Your task to perform on an android device: Go to Wikipedia Image 0: 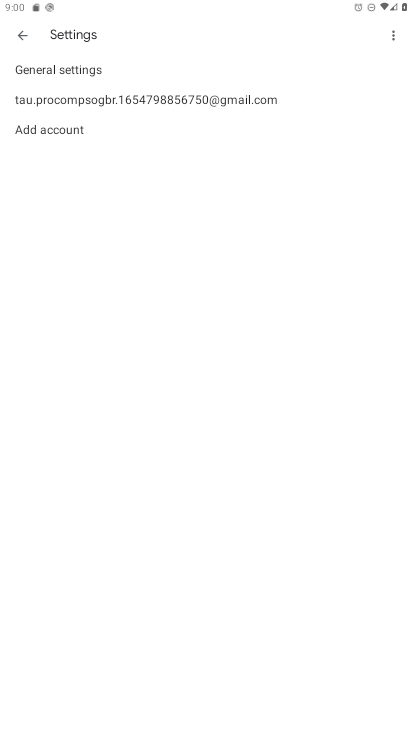
Step 0: press home button
Your task to perform on an android device: Go to Wikipedia Image 1: 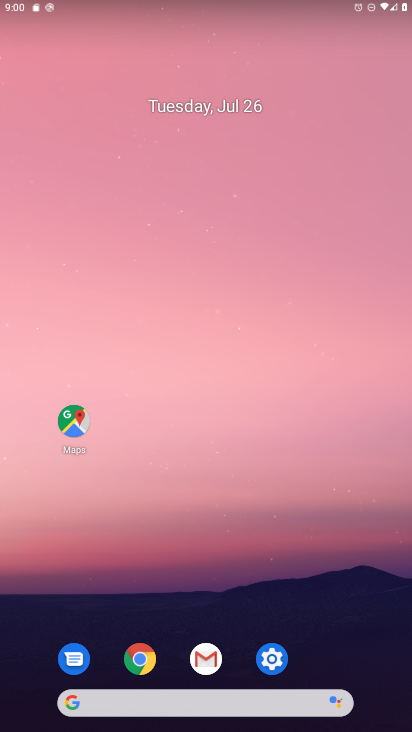
Step 1: click (149, 659)
Your task to perform on an android device: Go to Wikipedia Image 2: 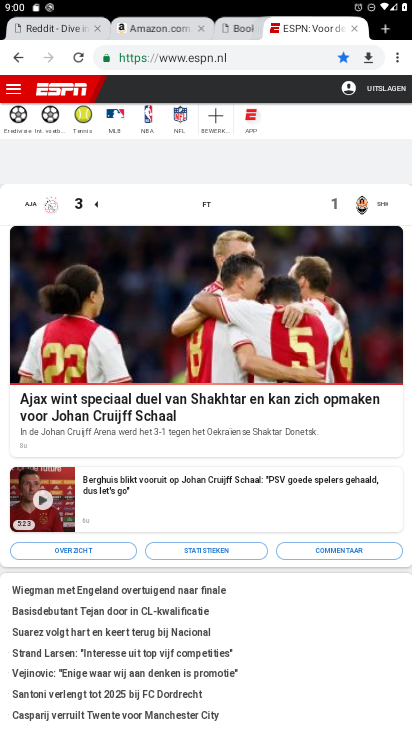
Step 2: click (382, 29)
Your task to perform on an android device: Go to Wikipedia Image 3: 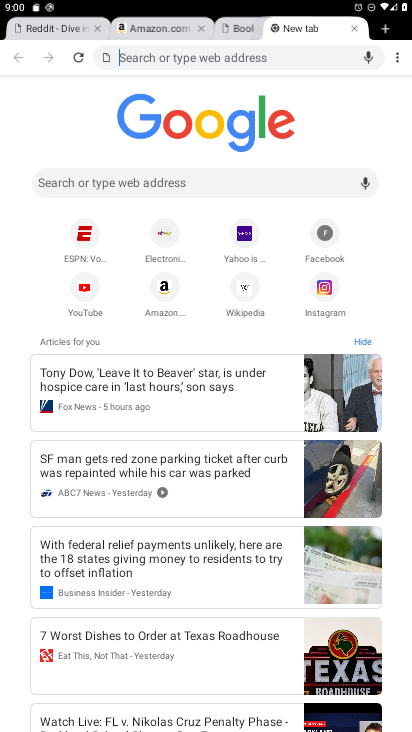
Step 3: click (235, 285)
Your task to perform on an android device: Go to Wikipedia Image 4: 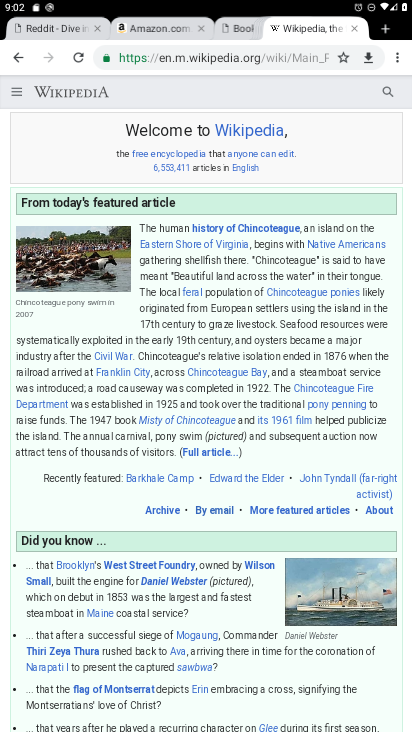
Step 4: task complete